Your task to perform on an android device: turn off location Image 0: 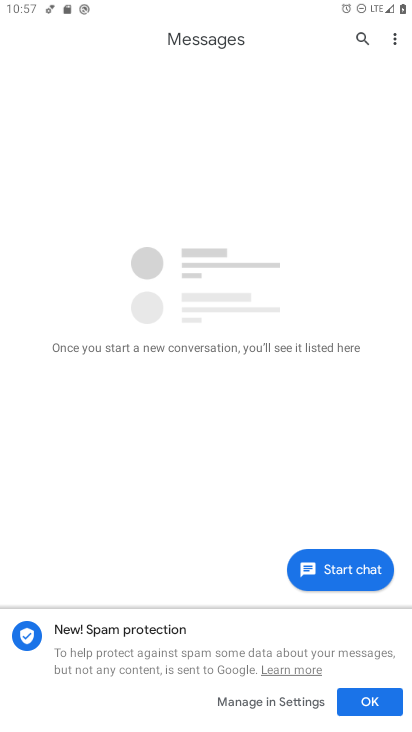
Step 0: press home button
Your task to perform on an android device: turn off location Image 1: 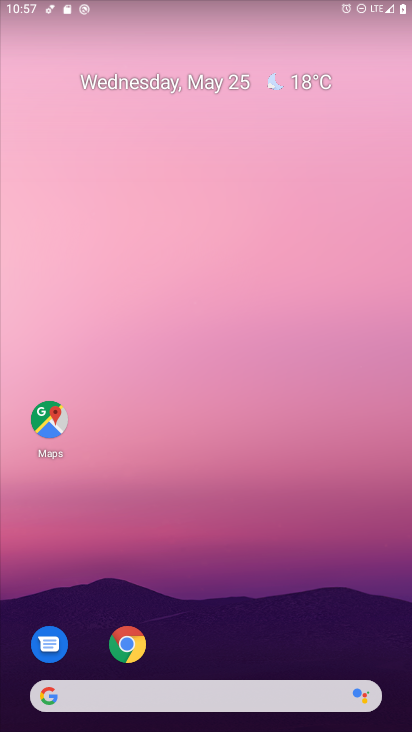
Step 1: drag from (224, 665) to (255, 113)
Your task to perform on an android device: turn off location Image 2: 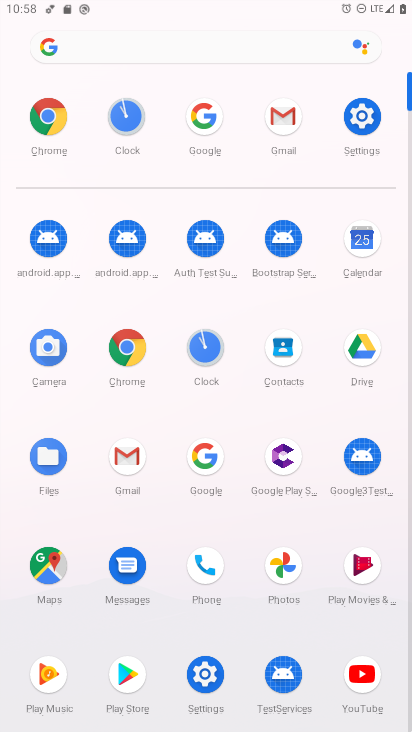
Step 2: click (361, 109)
Your task to perform on an android device: turn off location Image 3: 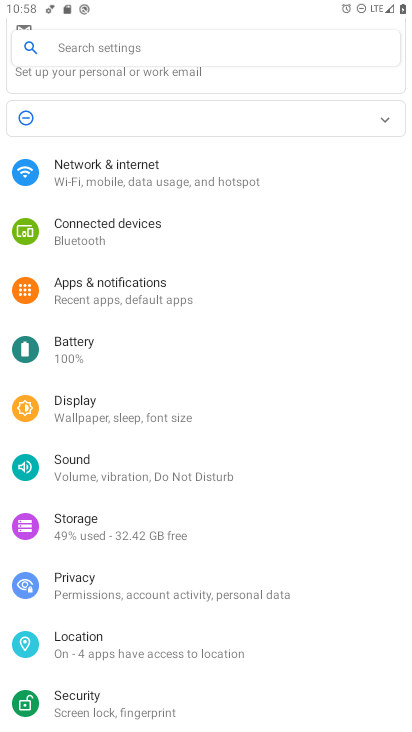
Step 3: click (114, 638)
Your task to perform on an android device: turn off location Image 4: 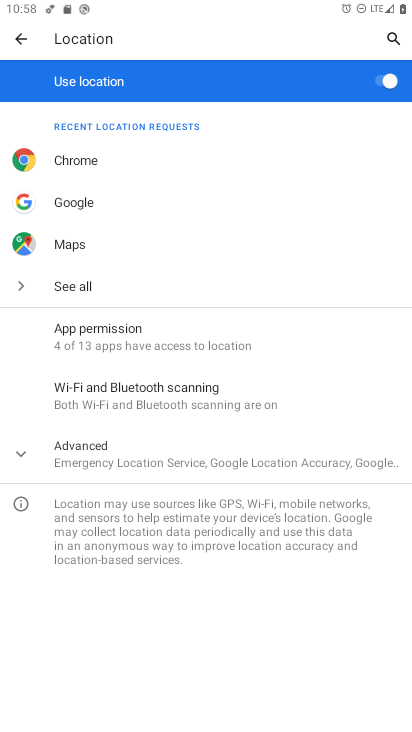
Step 4: click (380, 78)
Your task to perform on an android device: turn off location Image 5: 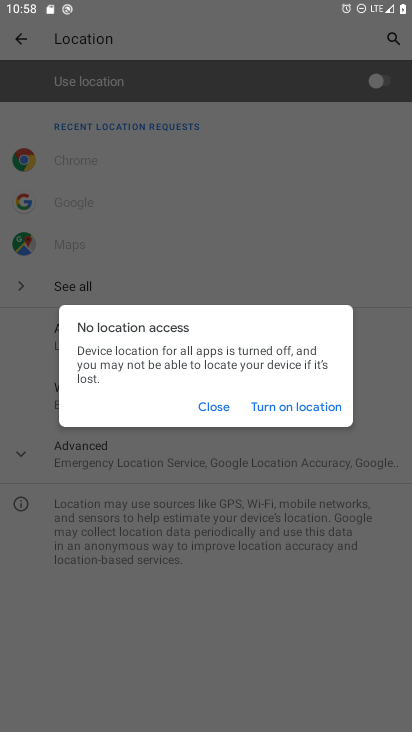
Step 5: click (211, 407)
Your task to perform on an android device: turn off location Image 6: 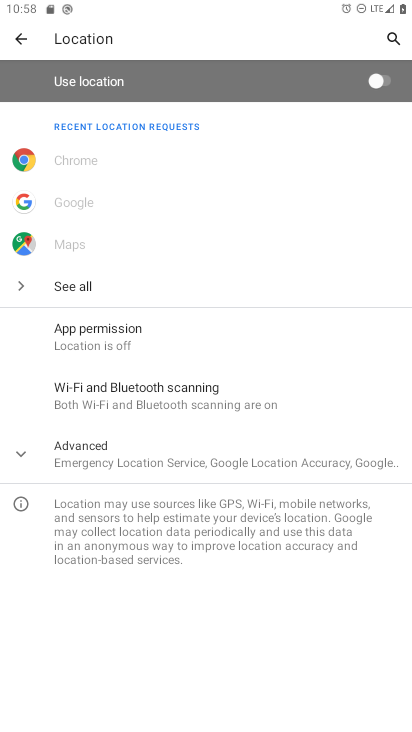
Step 6: task complete